Your task to perform on an android device: open a bookmark in the chrome app Image 0: 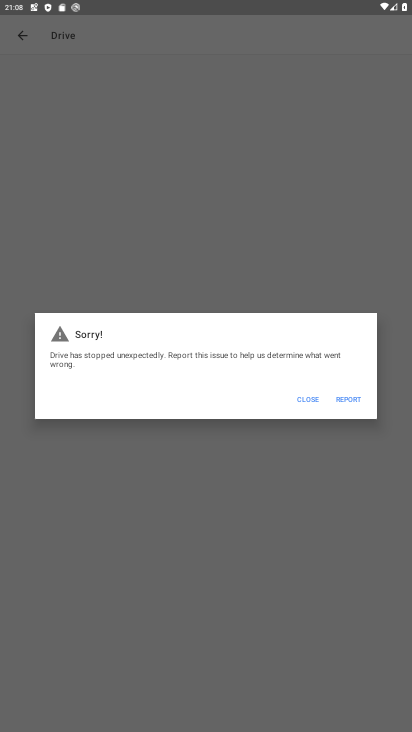
Step 0: press home button
Your task to perform on an android device: open a bookmark in the chrome app Image 1: 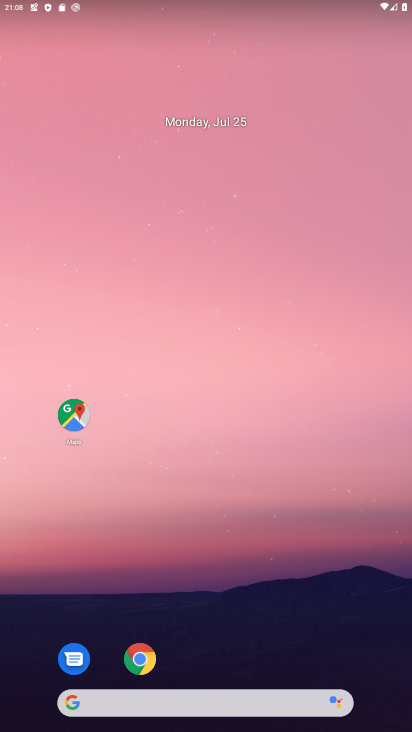
Step 1: click (144, 654)
Your task to perform on an android device: open a bookmark in the chrome app Image 2: 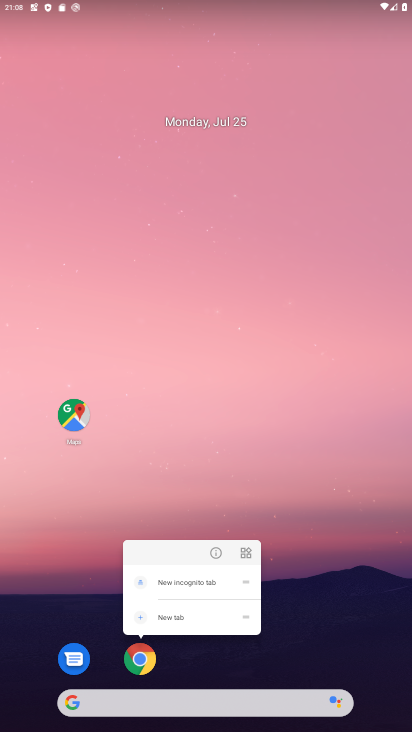
Step 2: click (146, 650)
Your task to perform on an android device: open a bookmark in the chrome app Image 3: 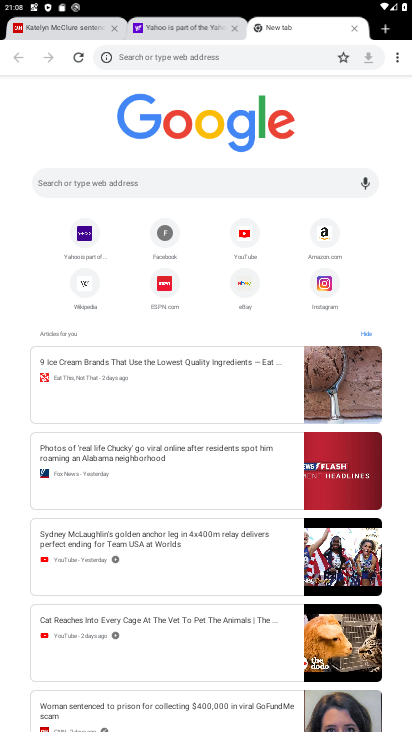
Step 3: click (405, 65)
Your task to perform on an android device: open a bookmark in the chrome app Image 4: 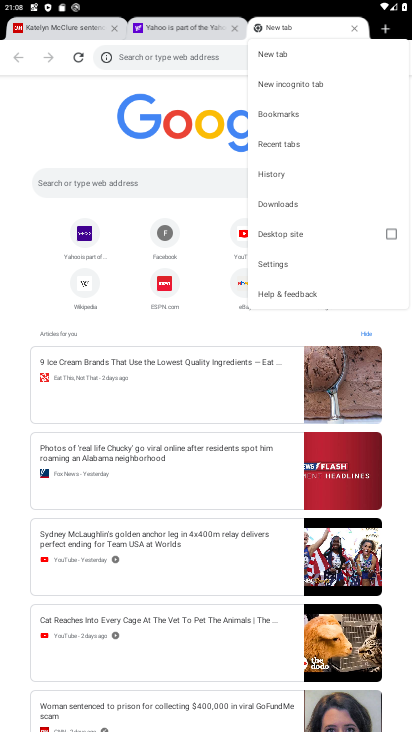
Step 4: click (282, 119)
Your task to perform on an android device: open a bookmark in the chrome app Image 5: 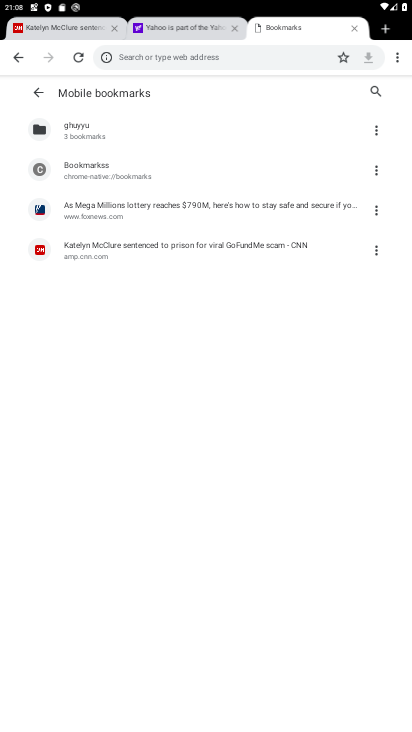
Step 5: click (179, 263)
Your task to perform on an android device: open a bookmark in the chrome app Image 6: 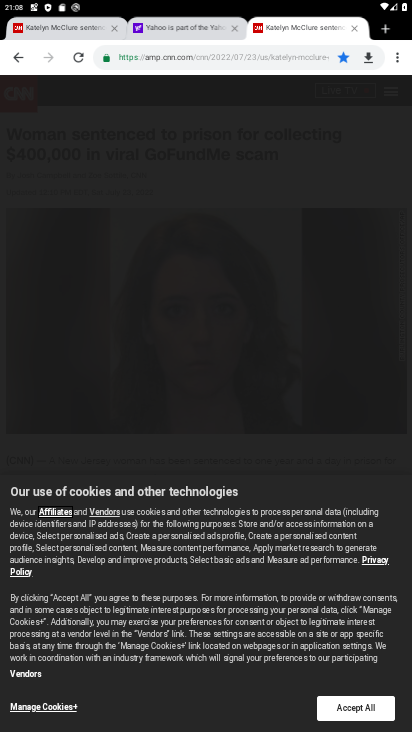
Step 6: task complete